Your task to perform on an android device: choose inbox layout in the gmail app Image 0: 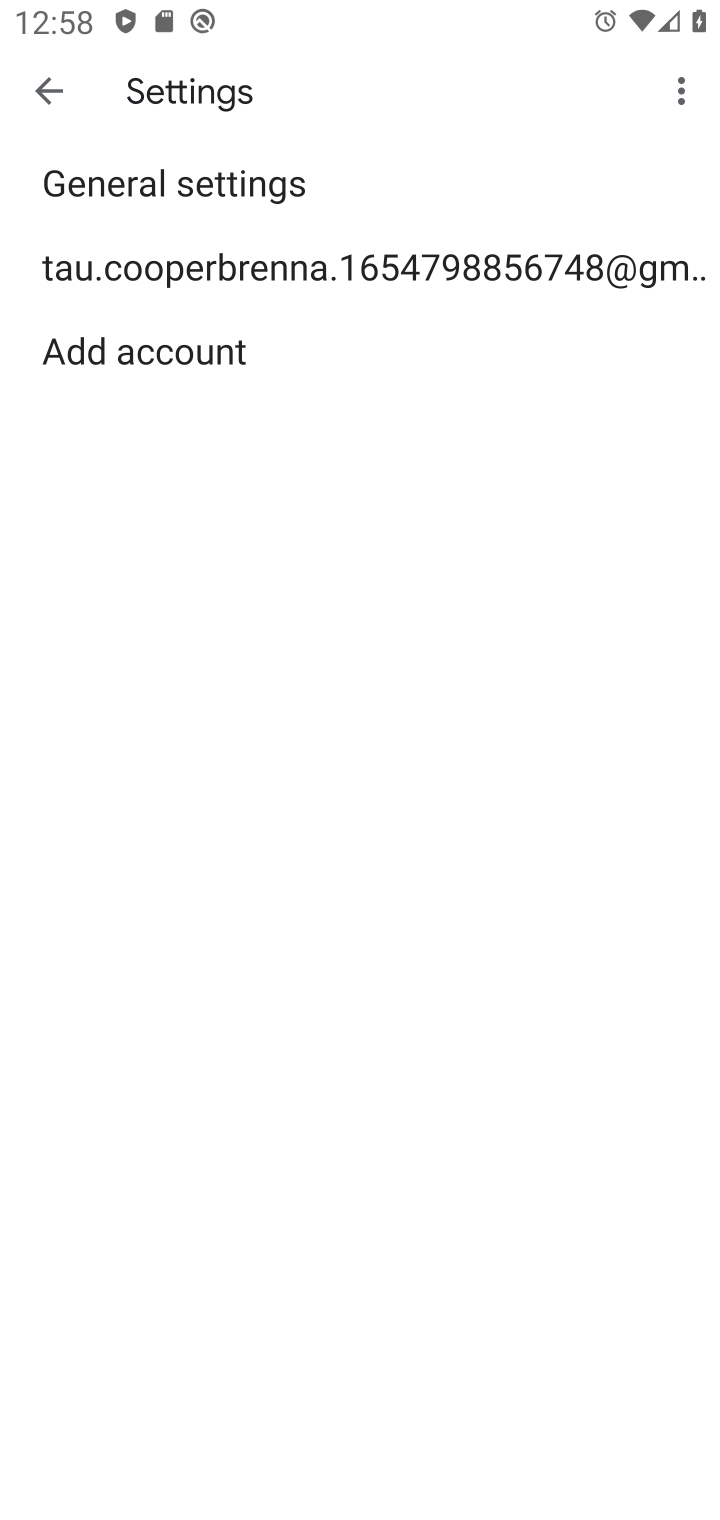
Step 0: press home button
Your task to perform on an android device: choose inbox layout in the gmail app Image 1: 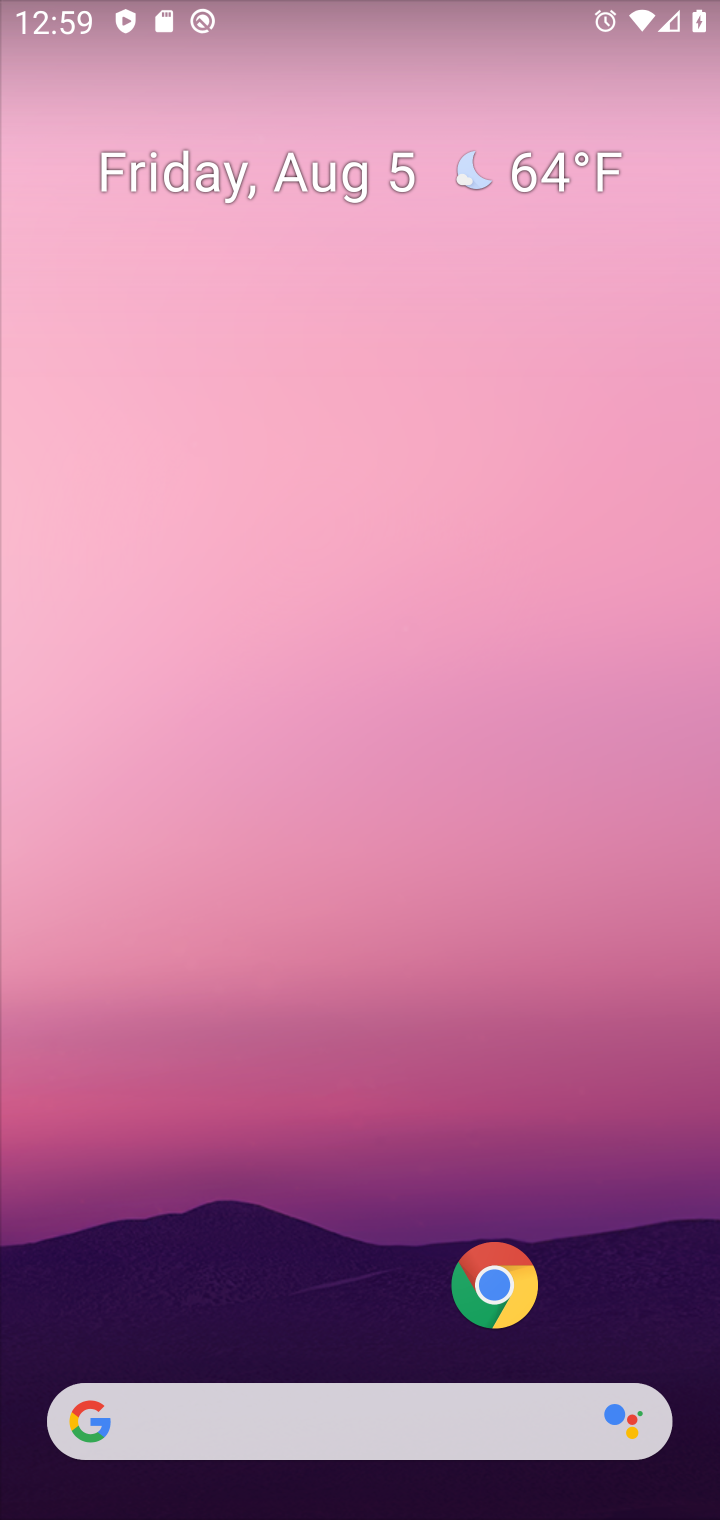
Step 1: drag from (241, 654) to (238, 150)
Your task to perform on an android device: choose inbox layout in the gmail app Image 2: 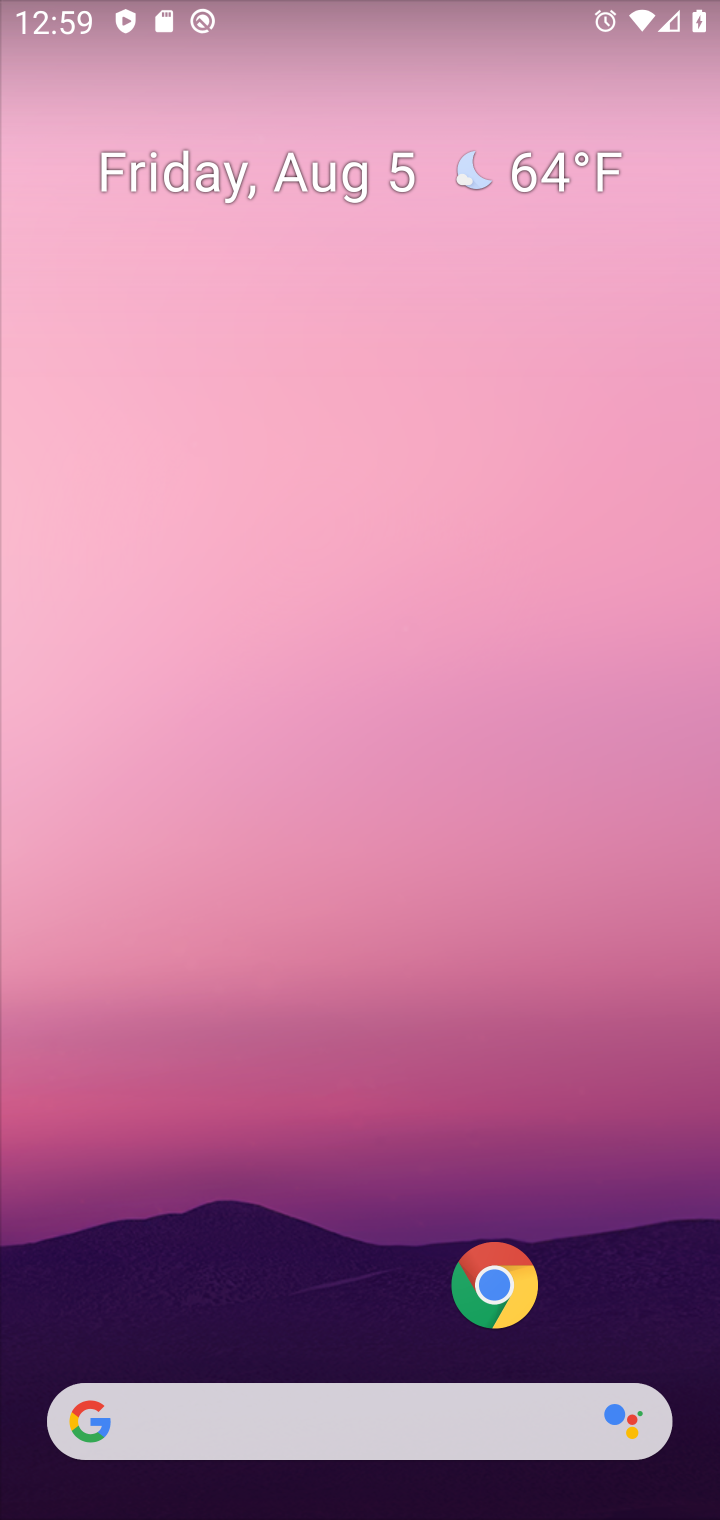
Step 2: drag from (297, 1169) to (473, 74)
Your task to perform on an android device: choose inbox layout in the gmail app Image 3: 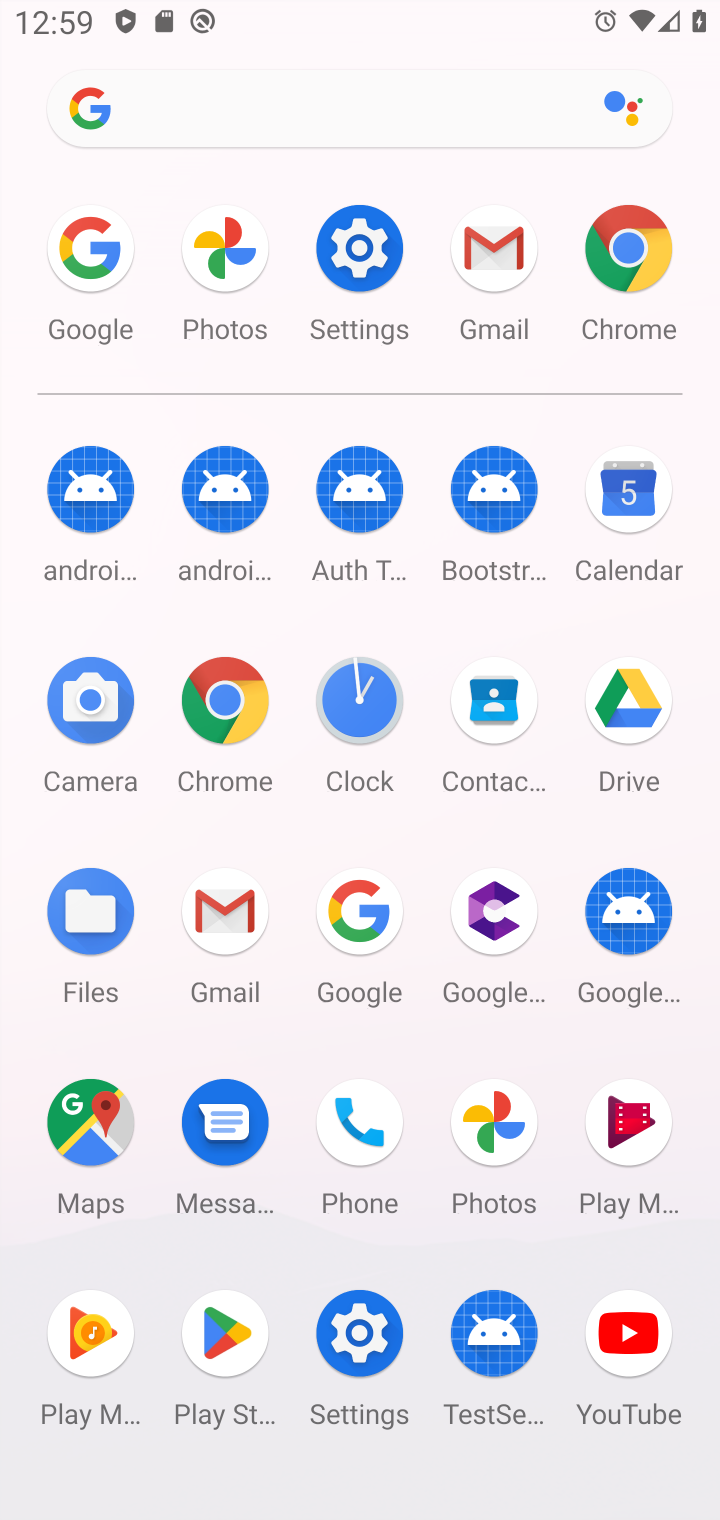
Step 3: click (509, 269)
Your task to perform on an android device: choose inbox layout in the gmail app Image 4: 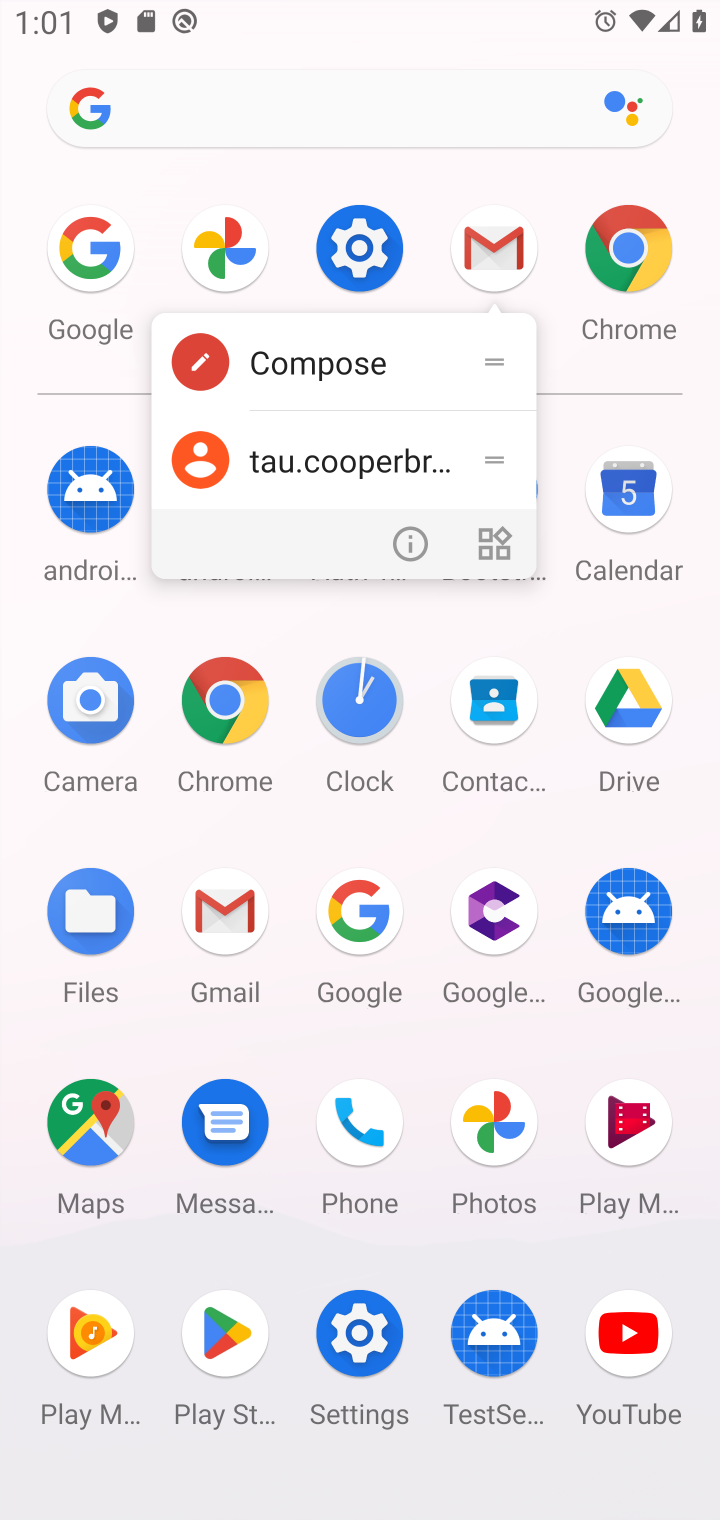
Step 4: click (488, 248)
Your task to perform on an android device: choose inbox layout in the gmail app Image 5: 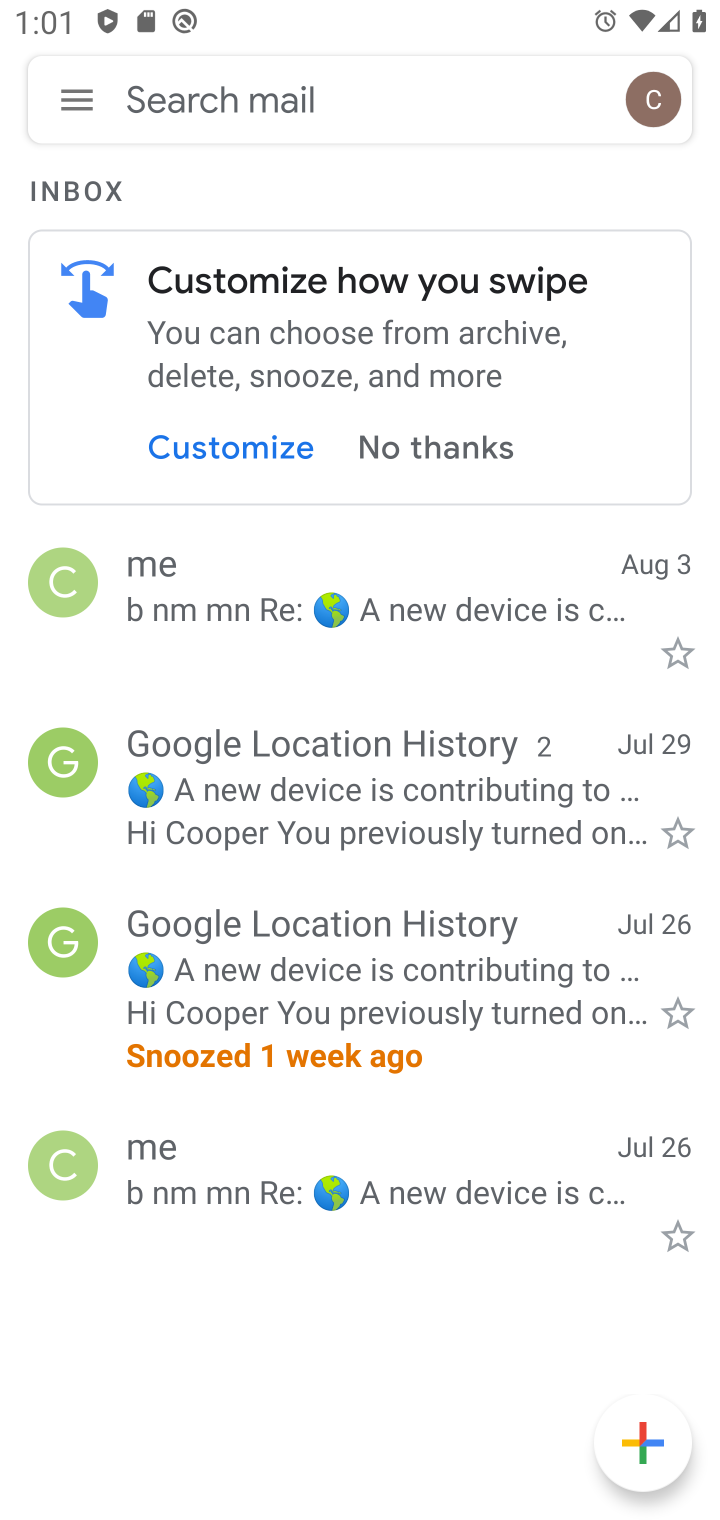
Step 5: click (82, 88)
Your task to perform on an android device: choose inbox layout in the gmail app Image 6: 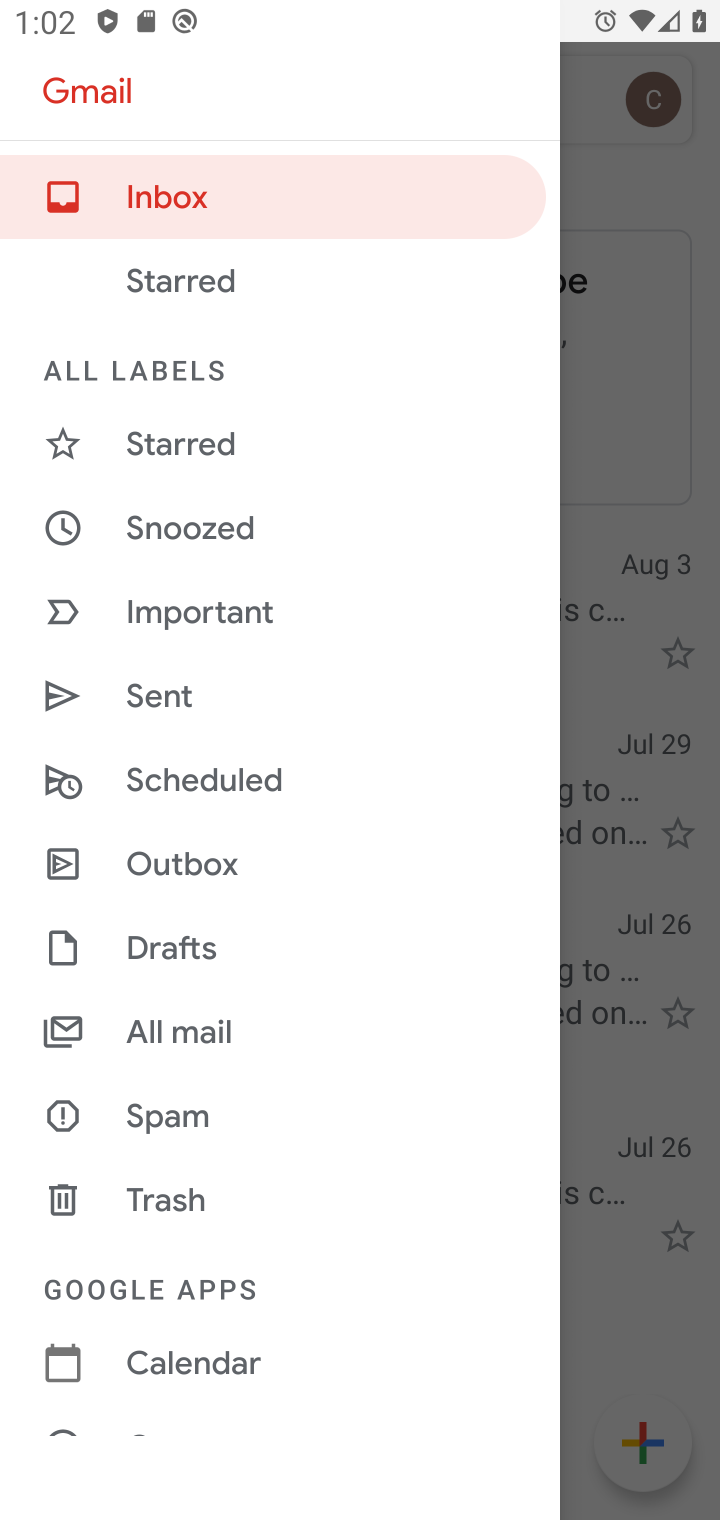
Step 6: drag from (30, 1328) to (102, 80)
Your task to perform on an android device: choose inbox layout in the gmail app Image 7: 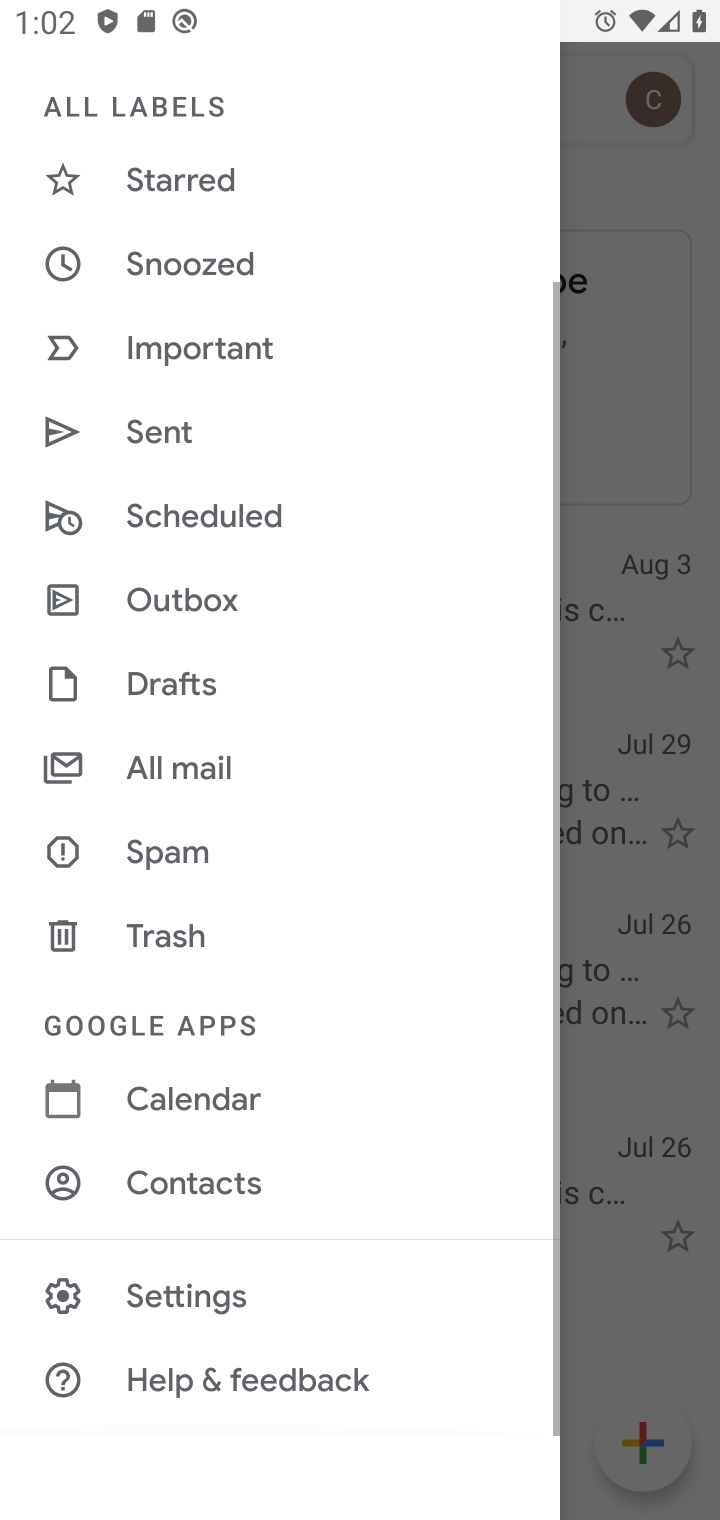
Step 7: click (117, 294)
Your task to perform on an android device: choose inbox layout in the gmail app Image 8: 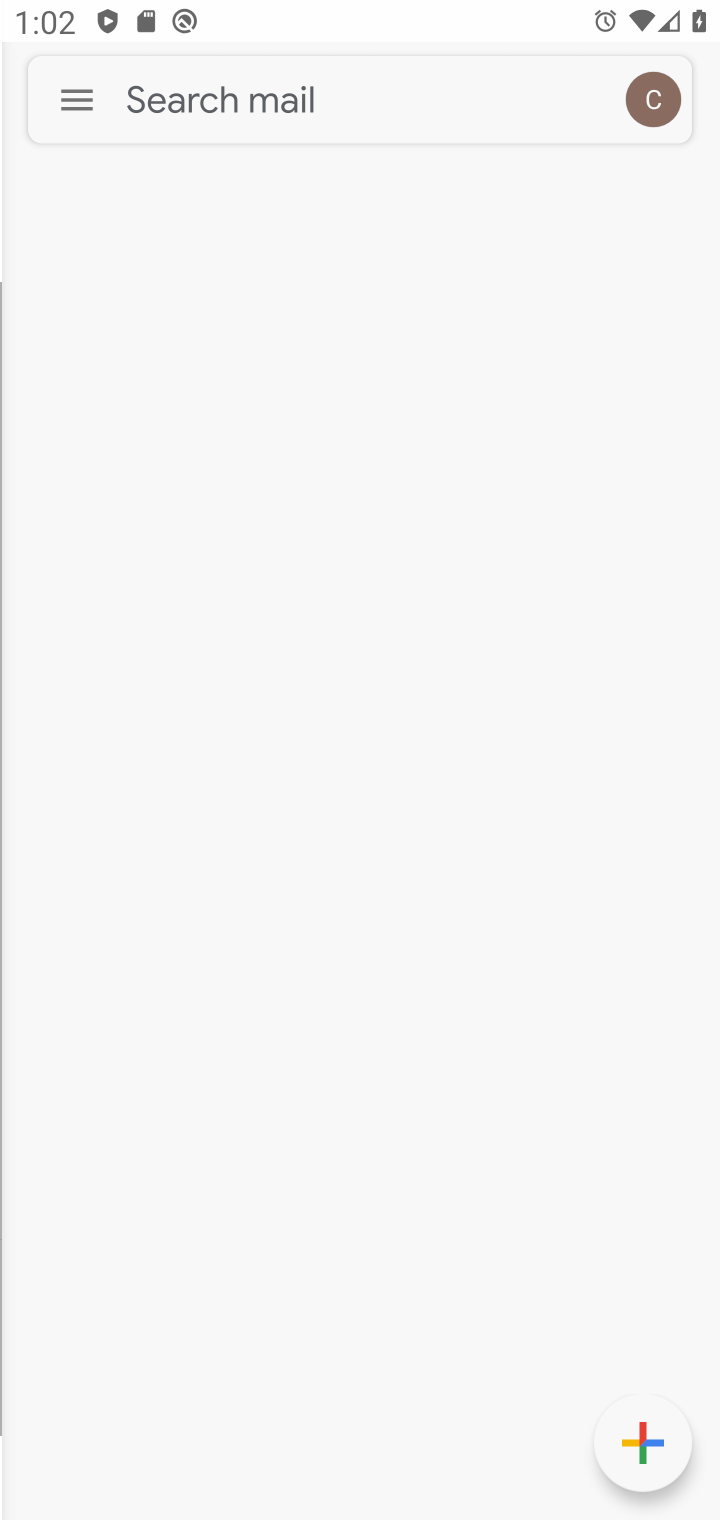
Step 8: click (194, 1299)
Your task to perform on an android device: choose inbox layout in the gmail app Image 9: 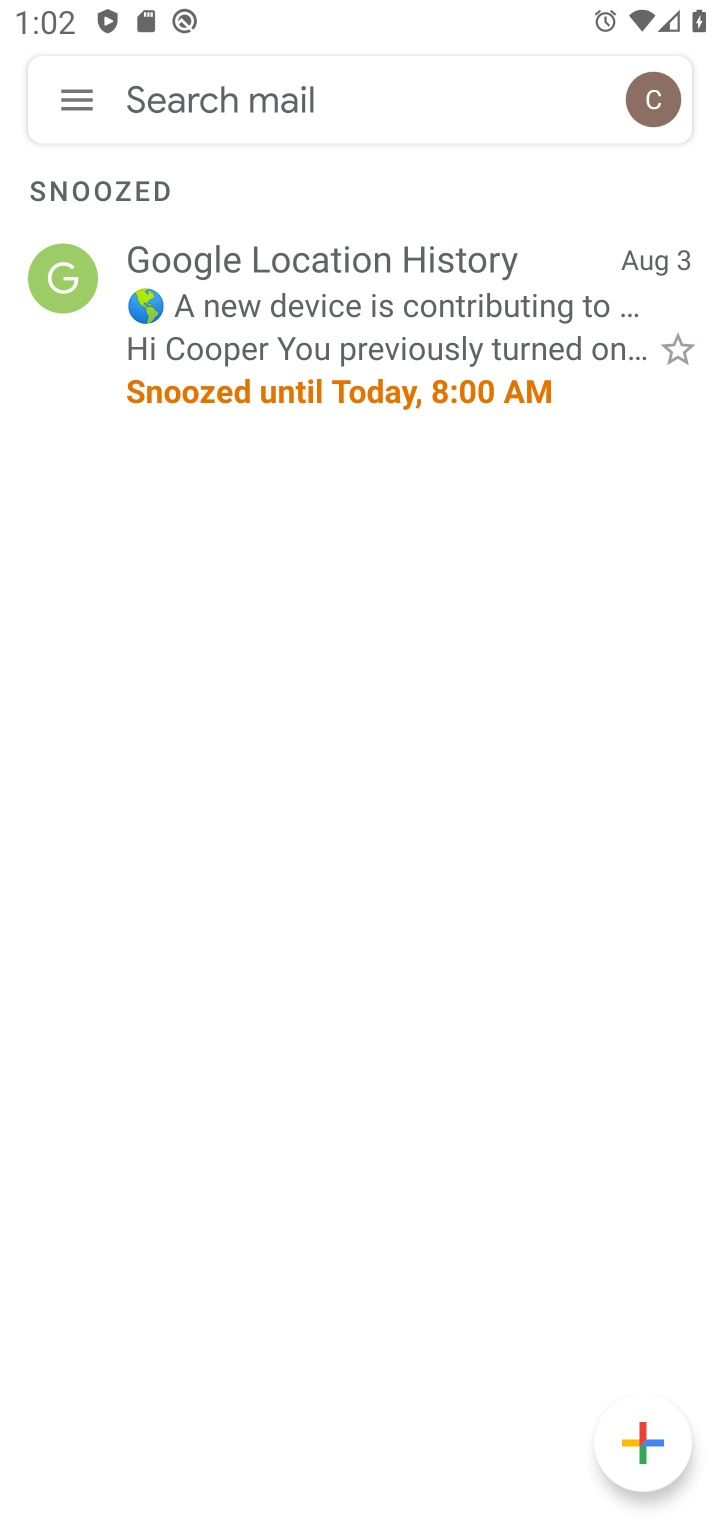
Step 9: press back button
Your task to perform on an android device: choose inbox layout in the gmail app Image 10: 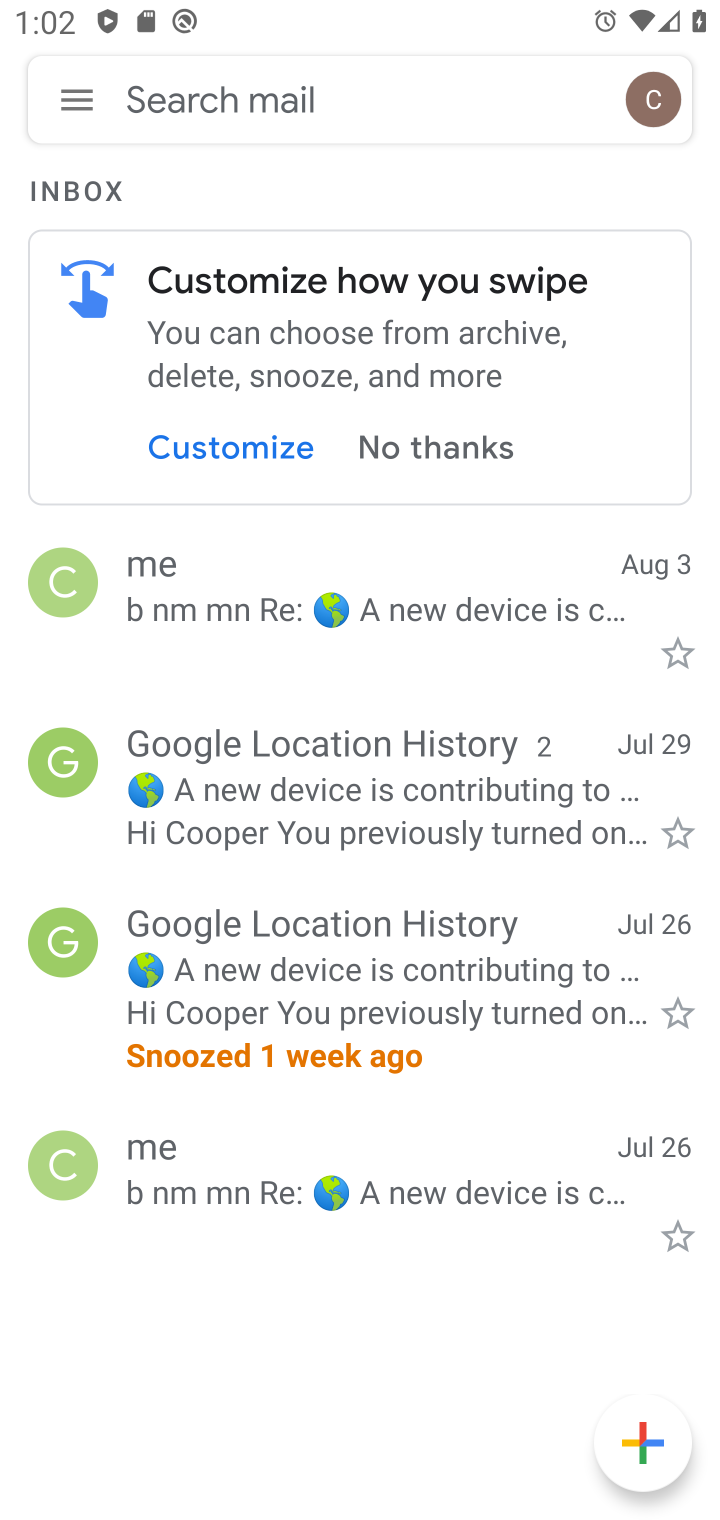
Step 10: click (80, 100)
Your task to perform on an android device: choose inbox layout in the gmail app Image 11: 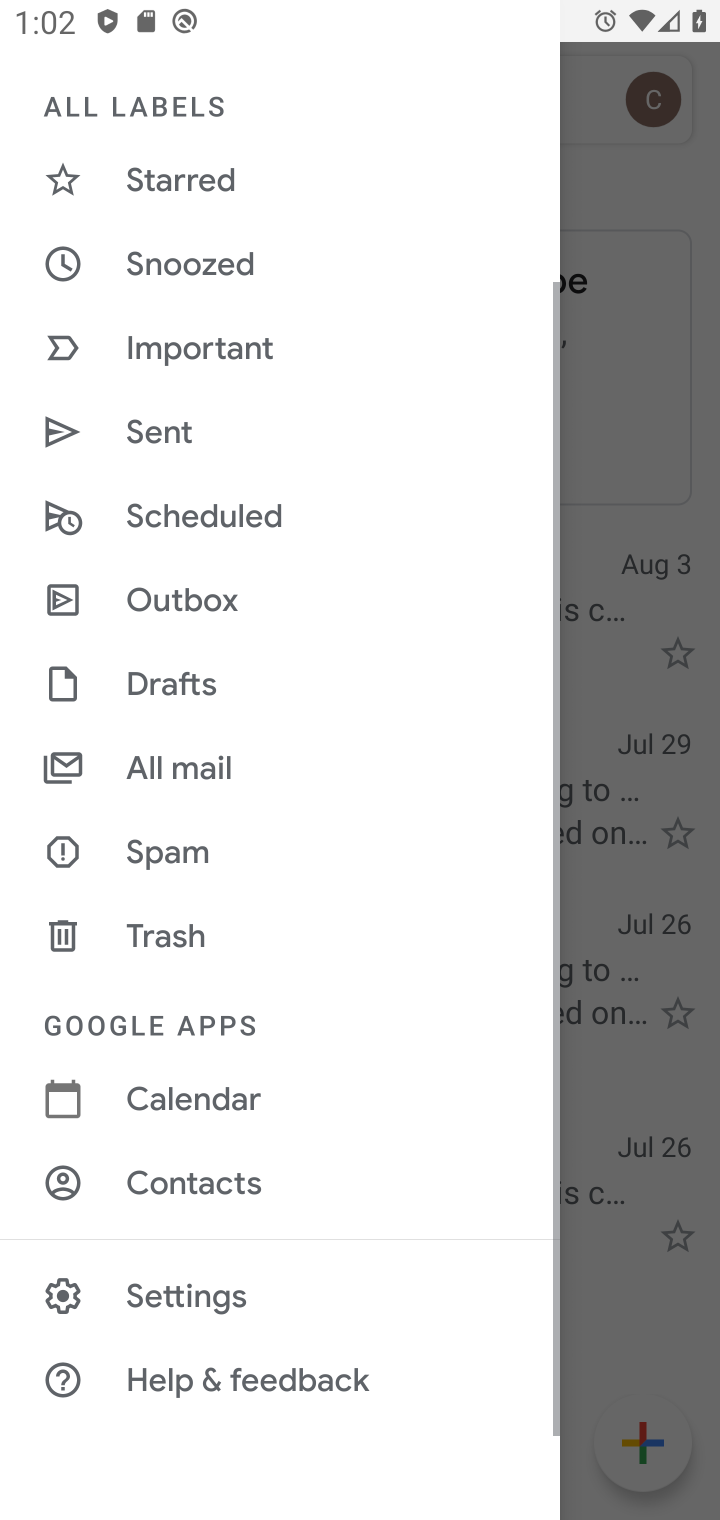
Step 11: drag from (152, 1259) to (101, 813)
Your task to perform on an android device: choose inbox layout in the gmail app Image 12: 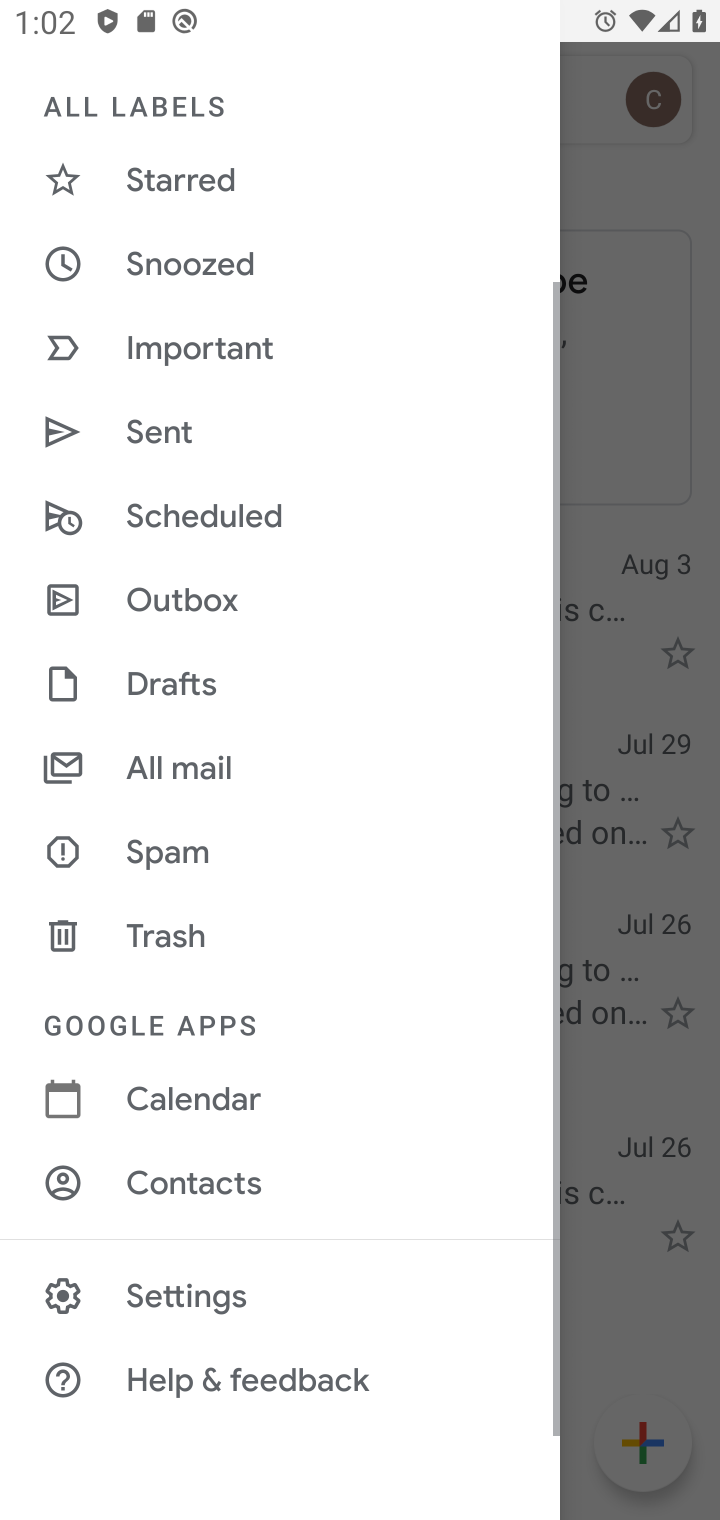
Step 12: click (202, 1291)
Your task to perform on an android device: choose inbox layout in the gmail app Image 13: 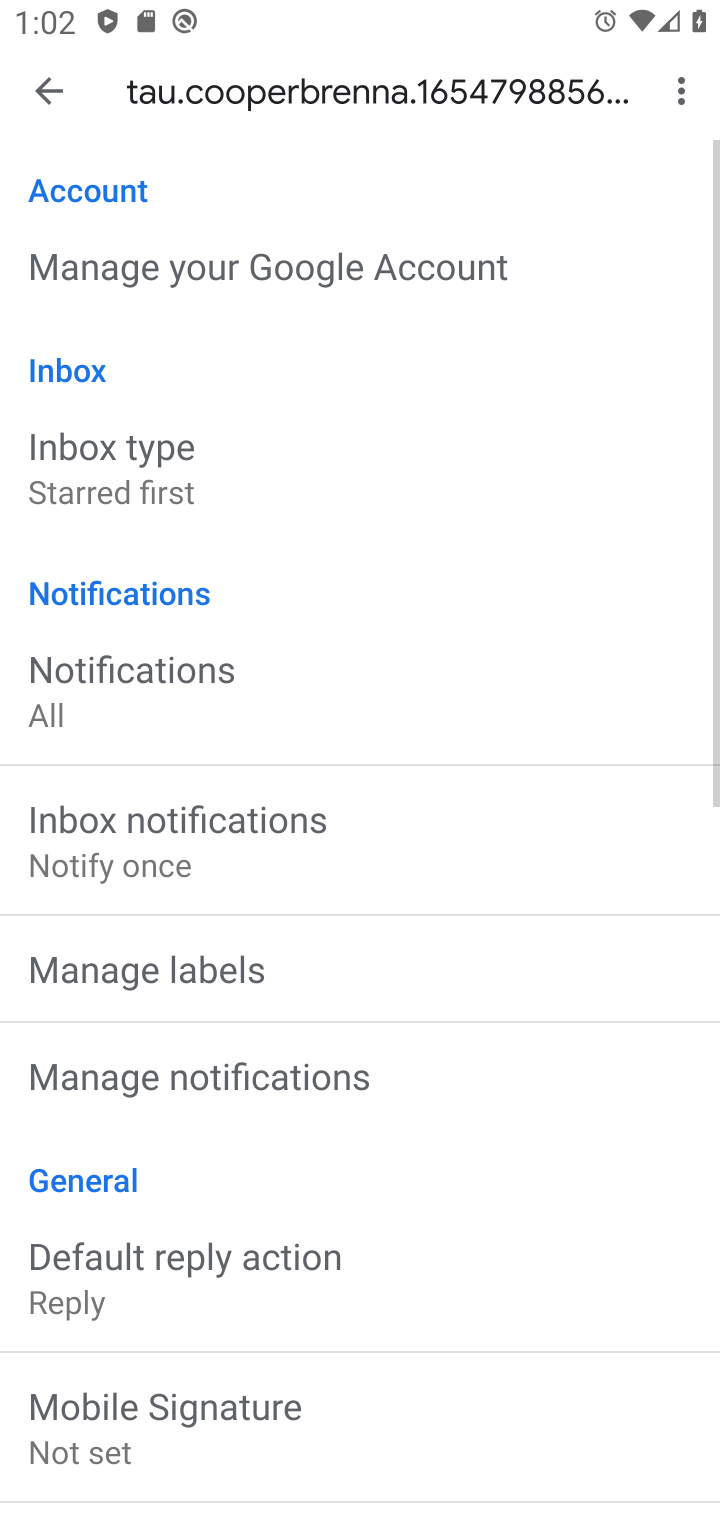
Step 13: click (105, 501)
Your task to perform on an android device: choose inbox layout in the gmail app Image 14: 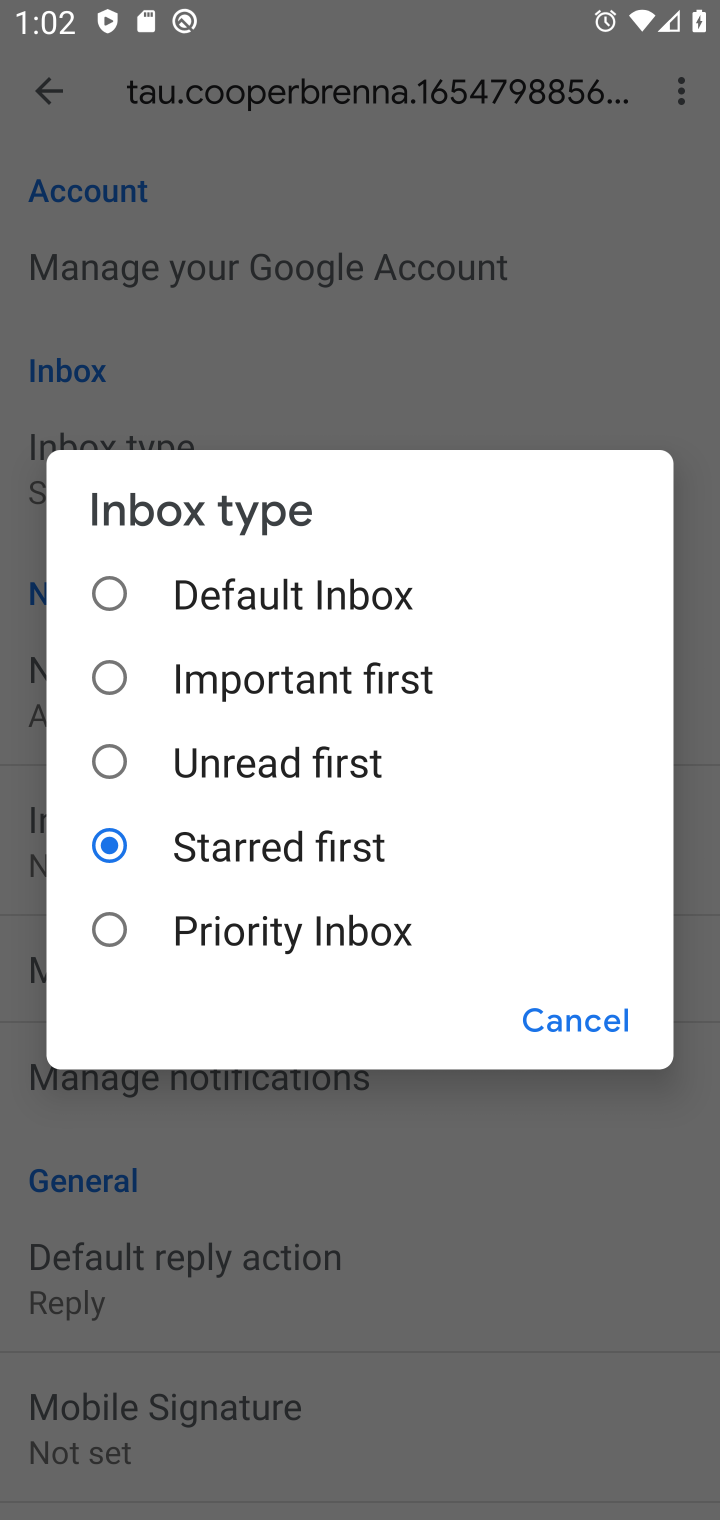
Step 14: click (231, 680)
Your task to perform on an android device: choose inbox layout in the gmail app Image 15: 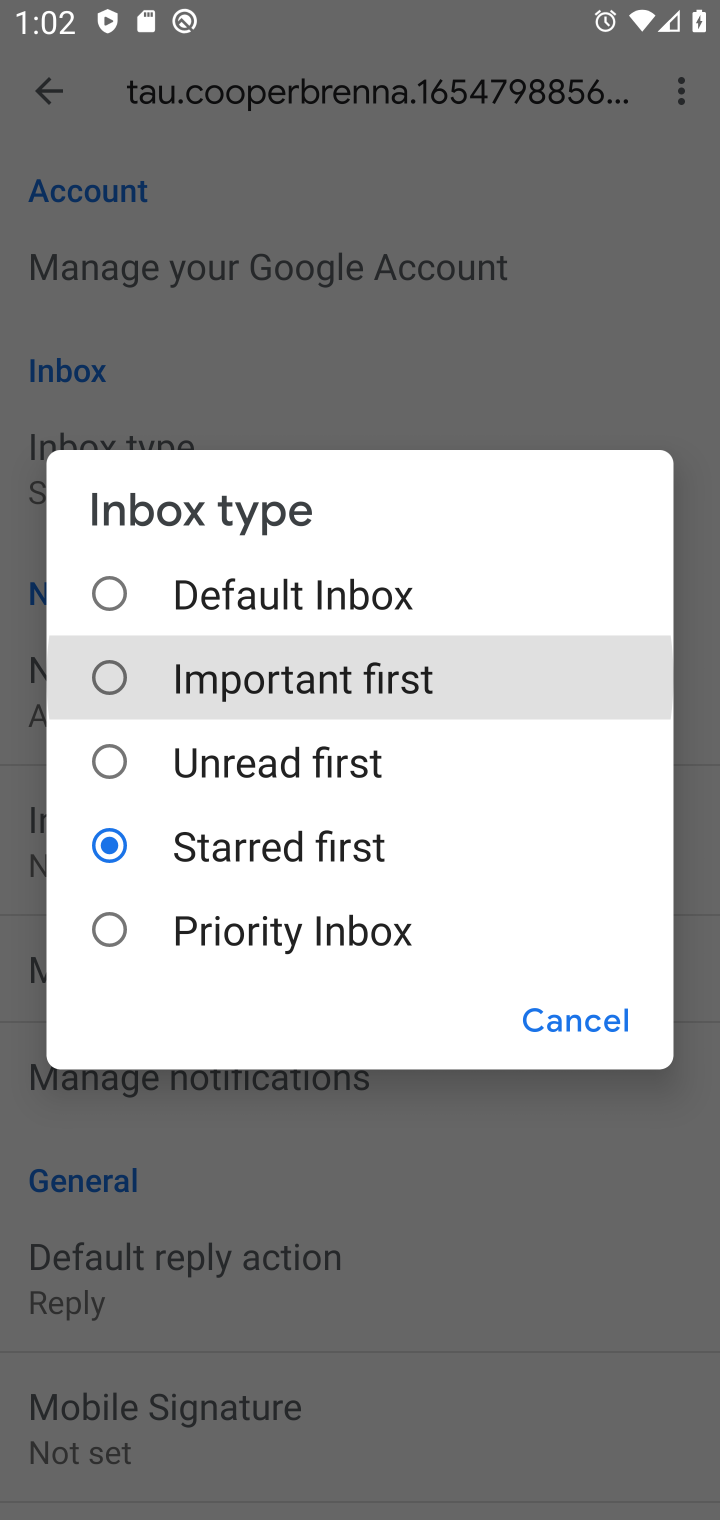
Step 15: task complete